Your task to perform on an android device: change the clock display to show seconds Image 0: 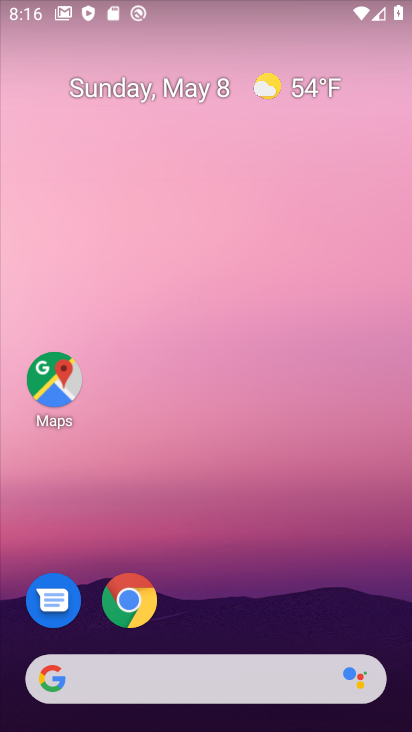
Step 0: drag from (183, 618) to (357, 66)
Your task to perform on an android device: change the clock display to show seconds Image 1: 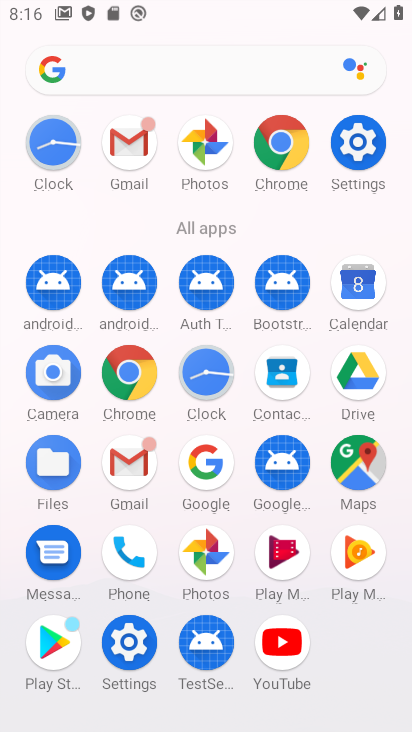
Step 1: click (43, 149)
Your task to perform on an android device: change the clock display to show seconds Image 2: 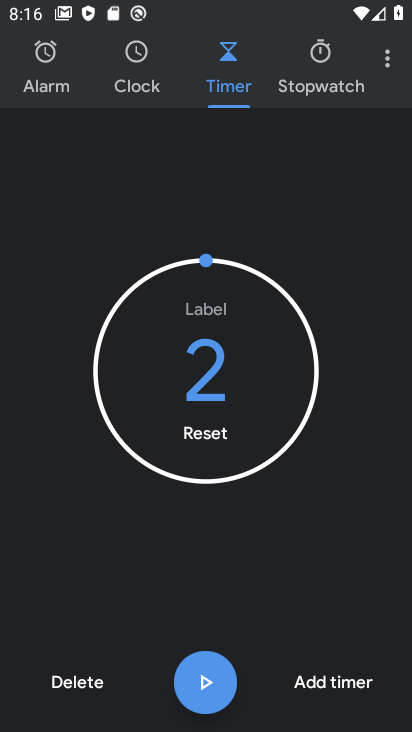
Step 2: click (376, 61)
Your task to perform on an android device: change the clock display to show seconds Image 3: 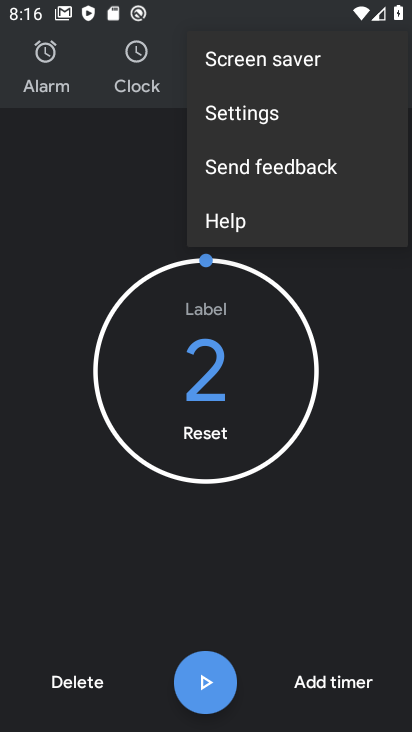
Step 3: click (299, 110)
Your task to perform on an android device: change the clock display to show seconds Image 4: 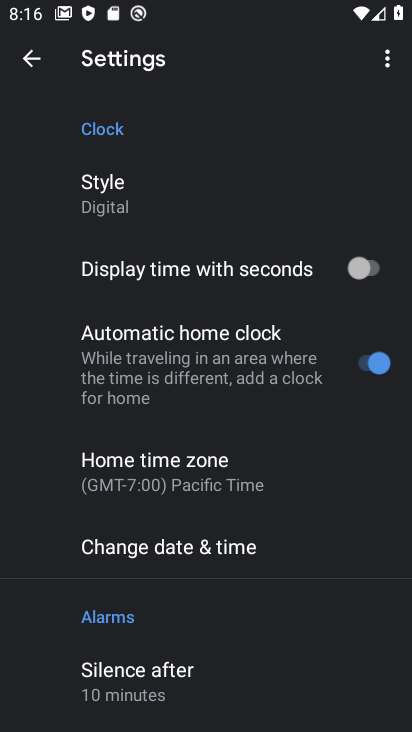
Step 4: click (380, 272)
Your task to perform on an android device: change the clock display to show seconds Image 5: 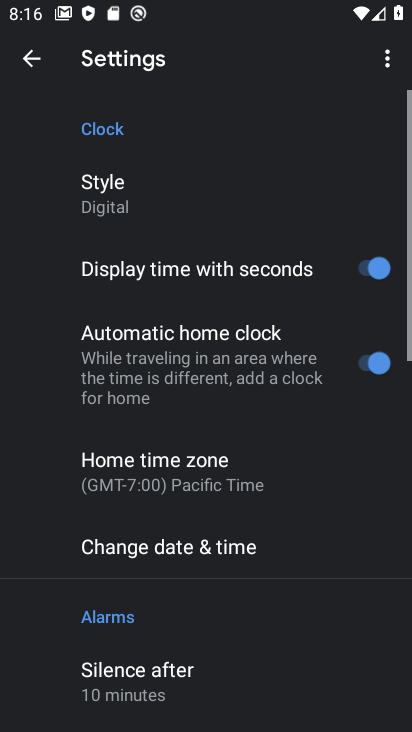
Step 5: task complete